Your task to perform on an android device: turn off notifications settings in the gmail app Image 0: 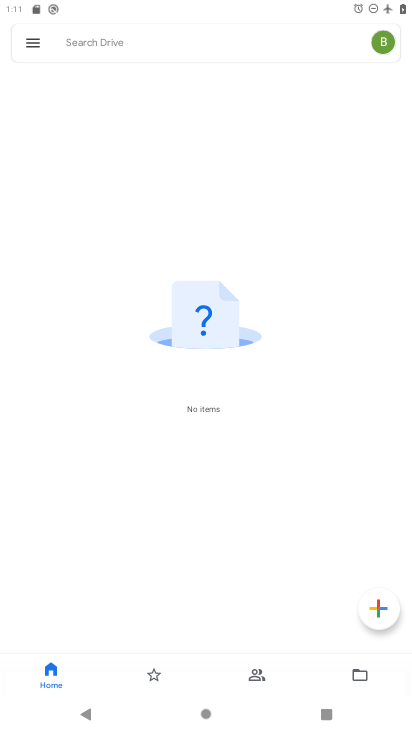
Step 0: press home button
Your task to perform on an android device: turn off notifications settings in the gmail app Image 1: 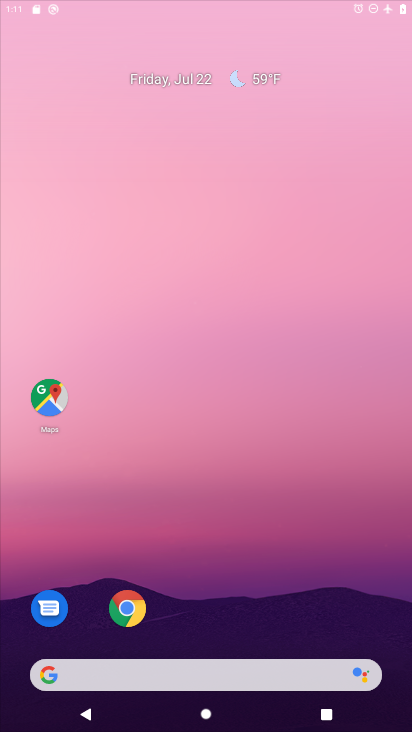
Step 1: drag from (390, 677) to (156, 39)
Your task to perform on an android device: turn off notifications settings in the gmail app Image 2: 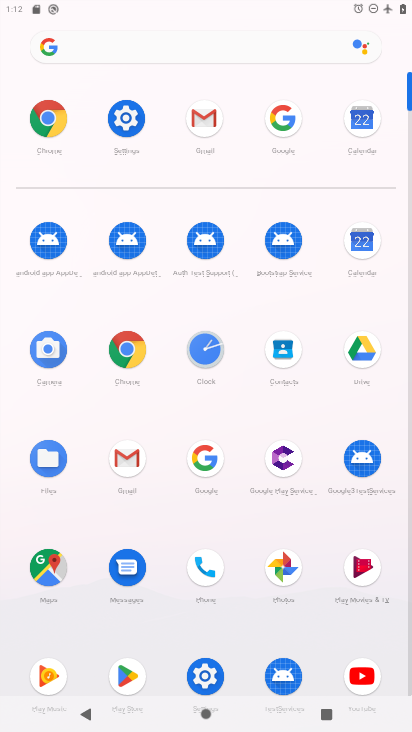
Step 2: click (117, 480)
Your task to perform on an android device: turn off notifications settings in the gmail app Image 3: 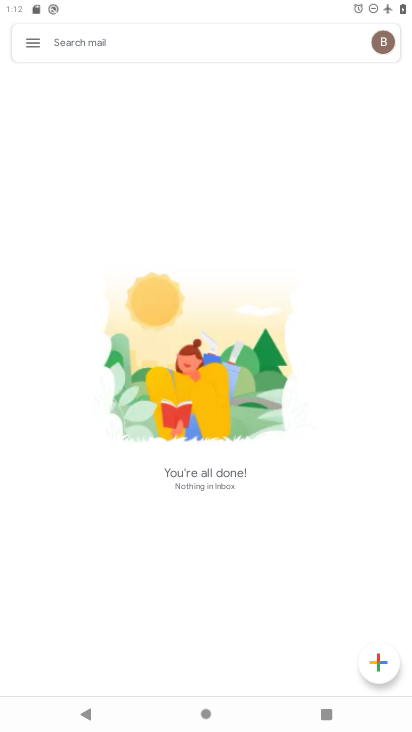
Step 3: click (31, 48)
Your task to perform on an android device: turn off notifications settings in the gmail app Image 4: 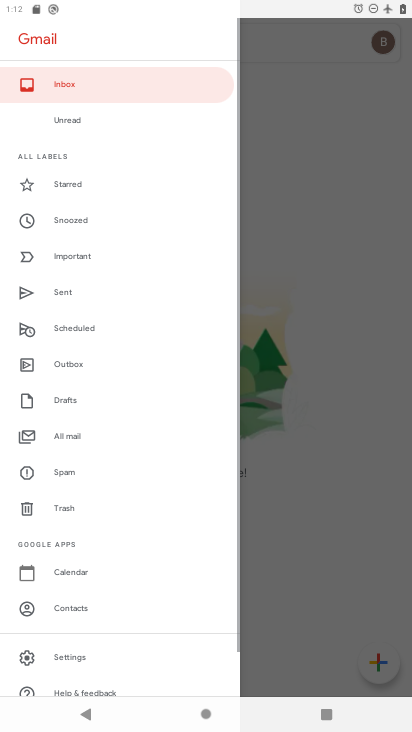
Step 4: drag from (60, 681) to (107, 68)
Your task to perform on an android device: turn off notifications settings in the gmail app Image 5: 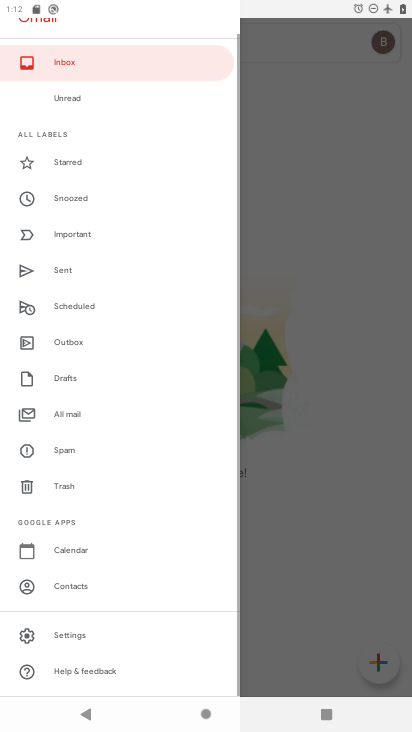
Step 5: click (65, 636)
Your task to perform on an android device: turn off notifications settings in the gmail app Image 6: 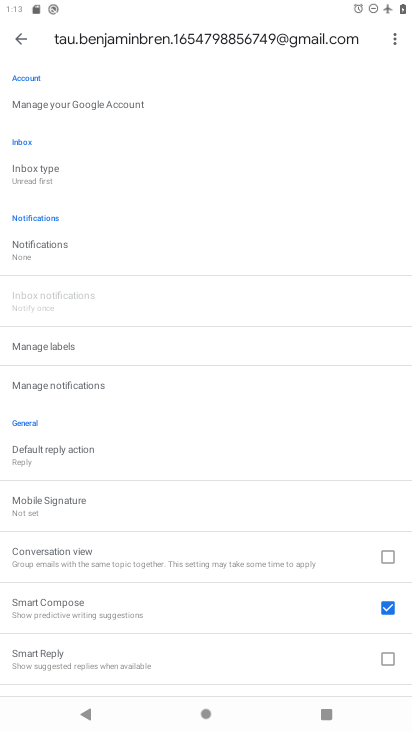
Step 6: click (54, 245)
Your task to perform on an android device: turn off notifications settings in the gmail app Image 7: 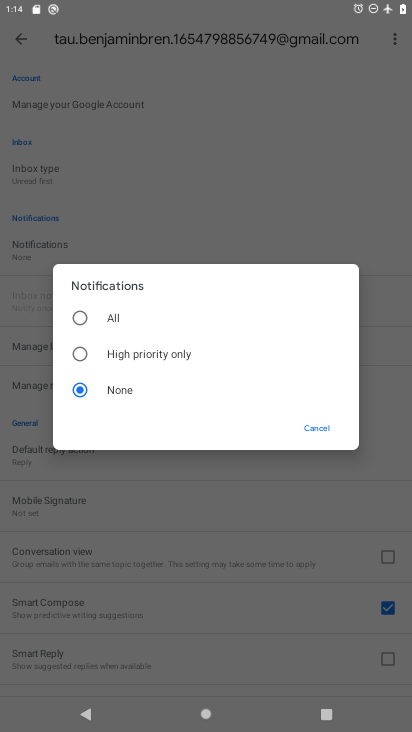
Step 7: click (113, 385)
Your task to perform on an android device: turn off notifications settings in the gmail app Image 8: 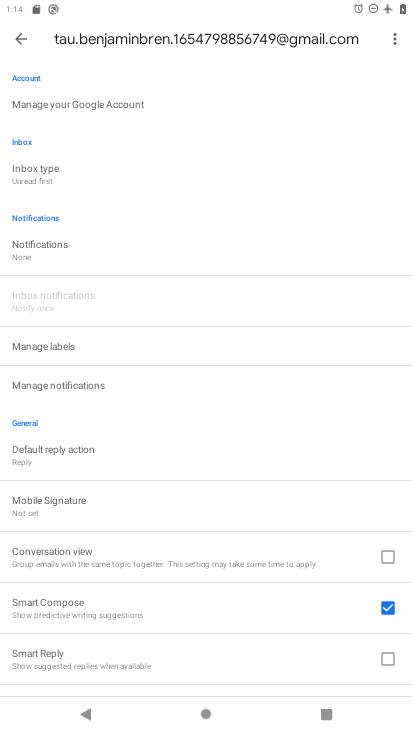
Step 8: task complete